Your task to perform on an android device: Open battery settings Image 0: 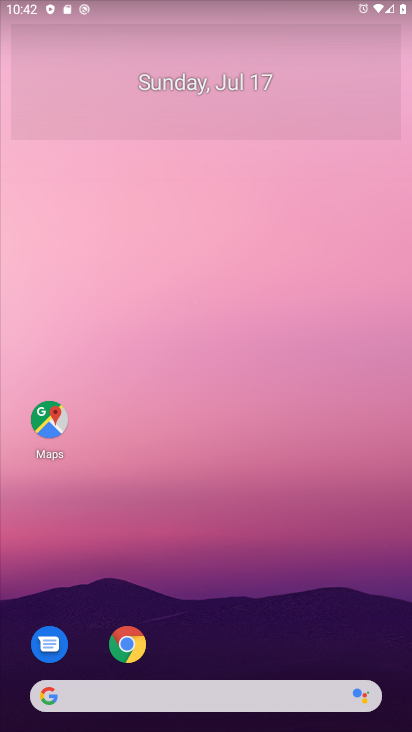
Step 0: drag from (334, 575) to (386, 10)
Your task to perform on an android device: Open battery settings Image 1: 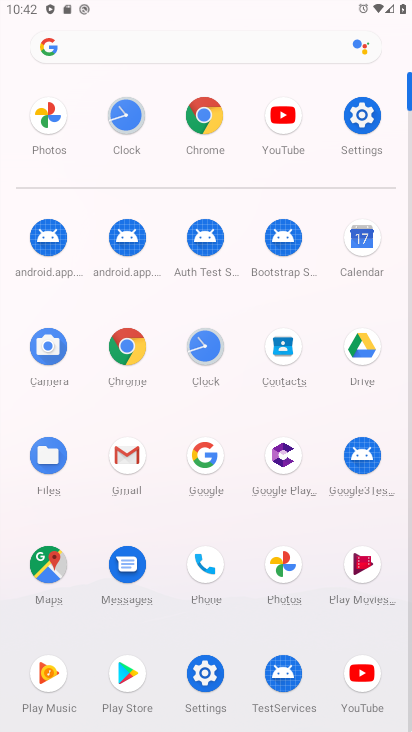
Step 1: click (362, 126)
Your task to perform on an android device: Open battery settings Image 2: 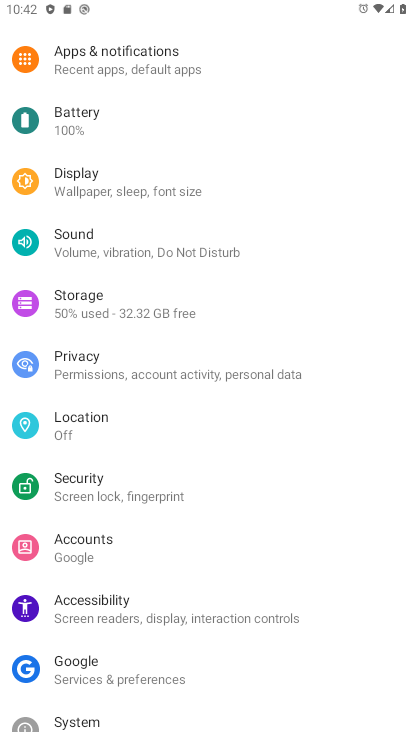
Step 2: click (59, 125)
Your task to perform on an android device: Open battery settings Image 3: 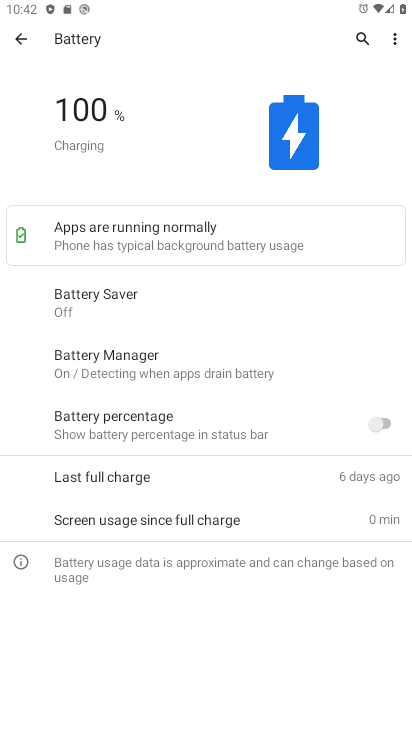
Step 3: task complete